Your task to perform on an android device: change timer sound Image 0: 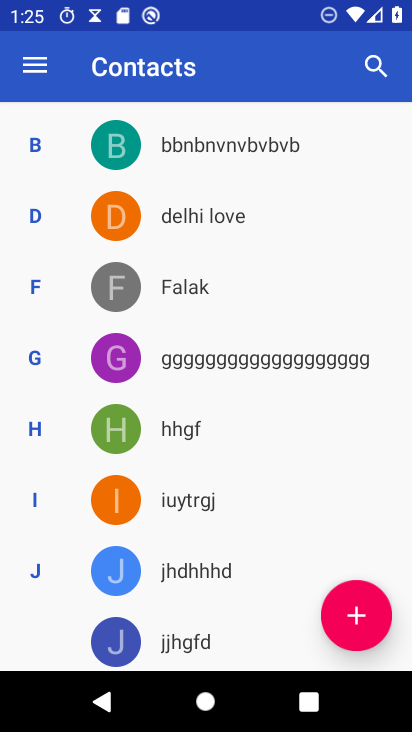
Step 0: press home button
Your task to perform on an android device: change timer sound Image 1: 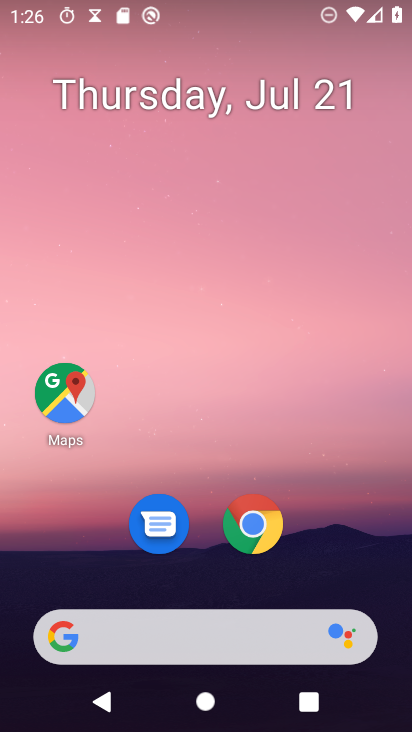
Step 1: drag from (198, 641) to (271, 65)
Your task to perform on an android device: change timer sound Image 2: 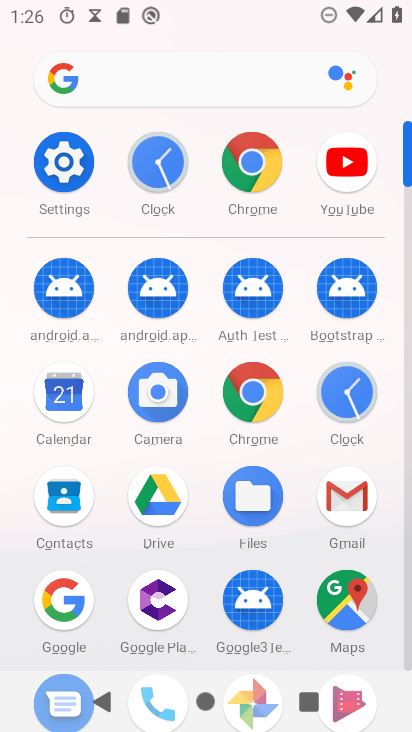
Step 2: click (341, 393)
Your task to perform on an android device: change timer sound Image 3: 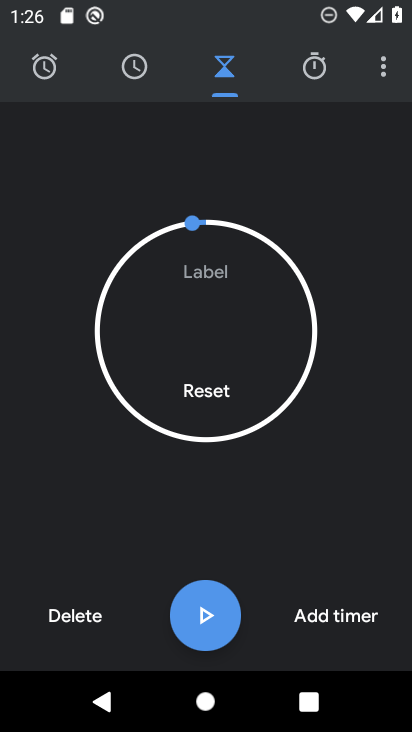
Step 3: click (384, 74)
Your task to perform on an android device: change timer sound Image 4: 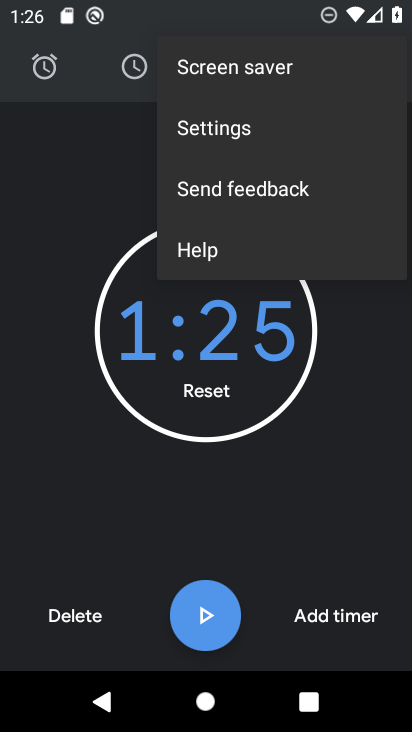
Step 4: click (233, 137)
Your task to perform on an android device: change timer sound Image 5: 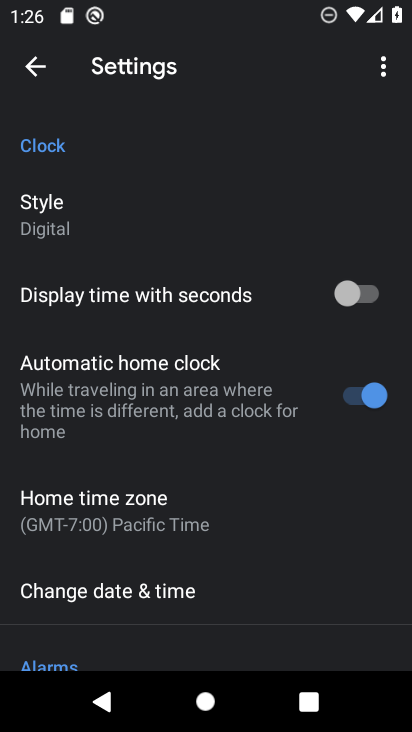
Step 5: drag from (240, 614) to (250, 162)
Your task to perform on an android device: change timer sound Image 6: 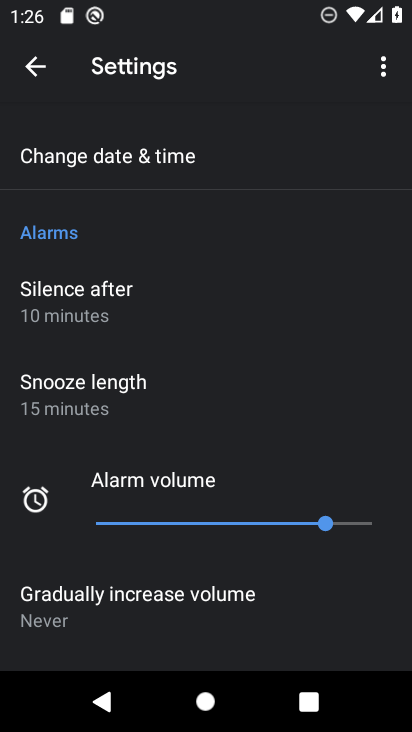
Step 6: drag from (188, 566) to (131, 183)
Your task to perform on an android device: change timer sound Image 7: 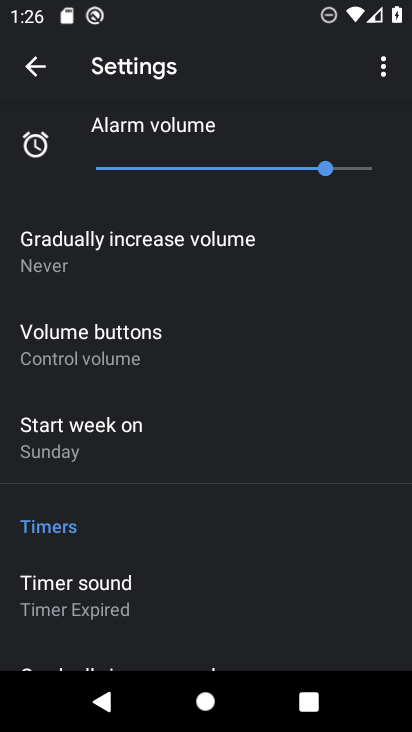
Step 7: click (101, 602)
Your task to perform on an android device: change timer sound Image 8: 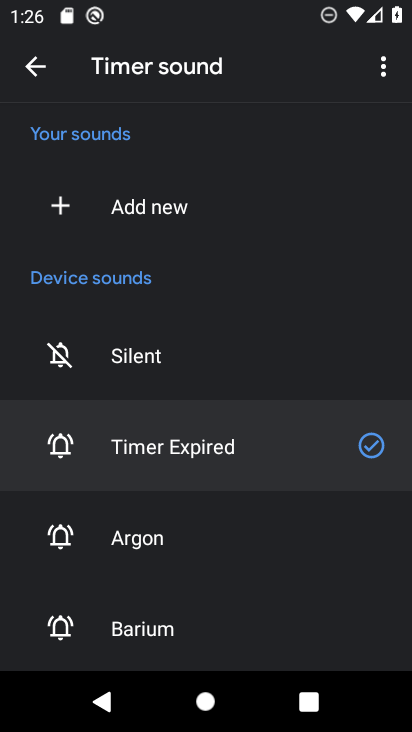
Step 8: click (146, 540)
Your task to perform on an android device: change timer sound Image 9: 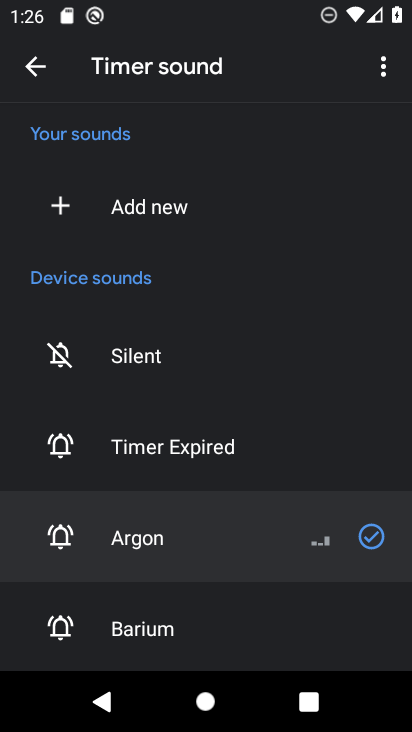
Step 9: task complete